Your task to perform on an android device: change the clock style Image 0: 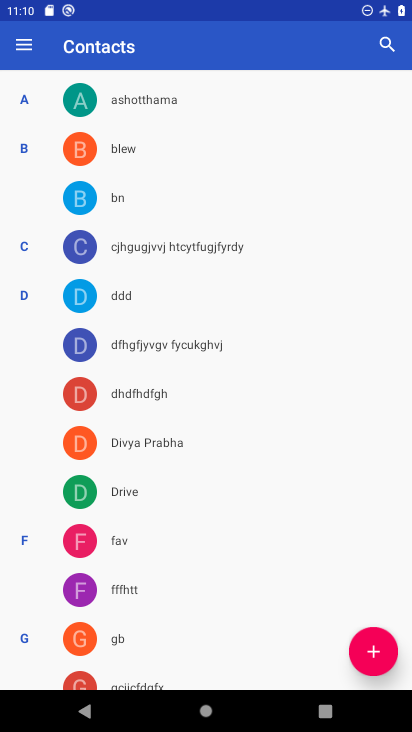
Step 0: press home button
Your task to perform on an android device: change the clock style Image 1: 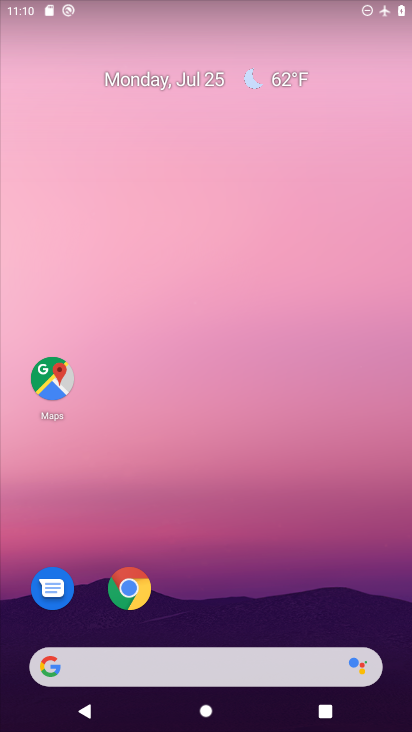
Step 1: drag from (20, 588) to (256, 68)
Your task to perform on an android device: change the clock style Image 2: 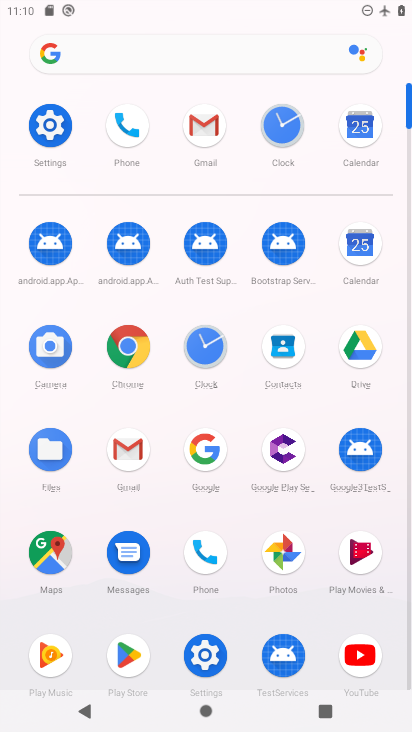
Step 2: click (201, 342)
Your task to perform on an android device: change the clock style Image 3: 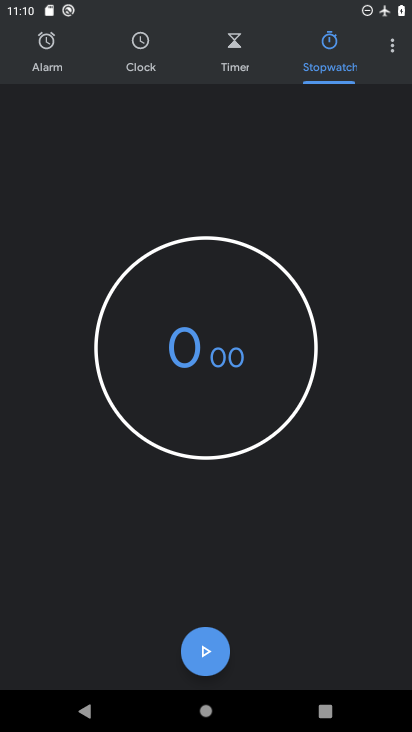
Step 3: click (396, 42)
Your task to perform on an android device: change the clock style Image 4: 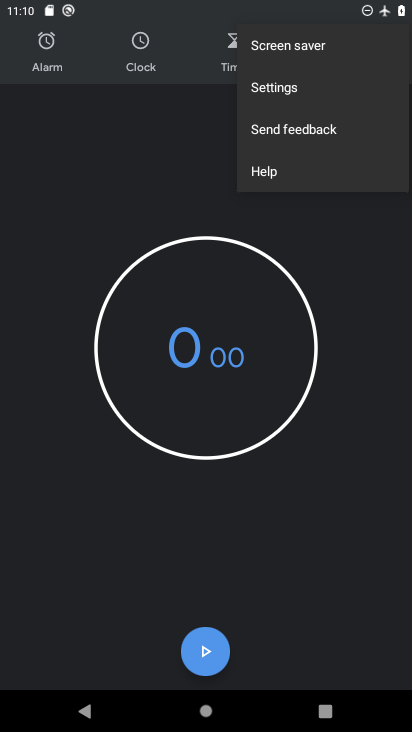
Step 4: click (293, 95)
Your task to perform on an android device: change the clock style Image 5: 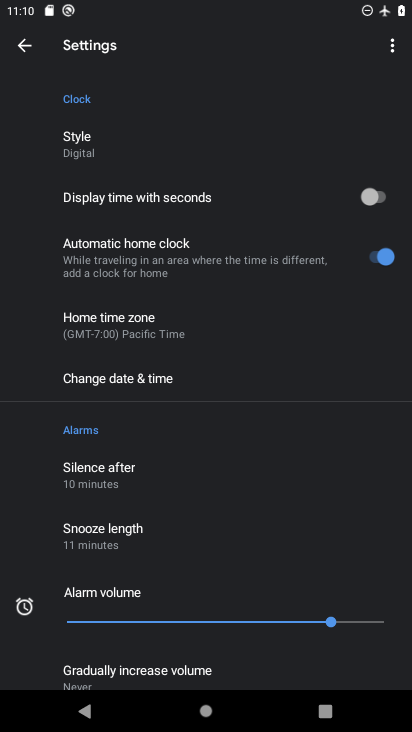
Step 5: click (153, 149)
Your task to perform on an android device: change the clock style Image 6: 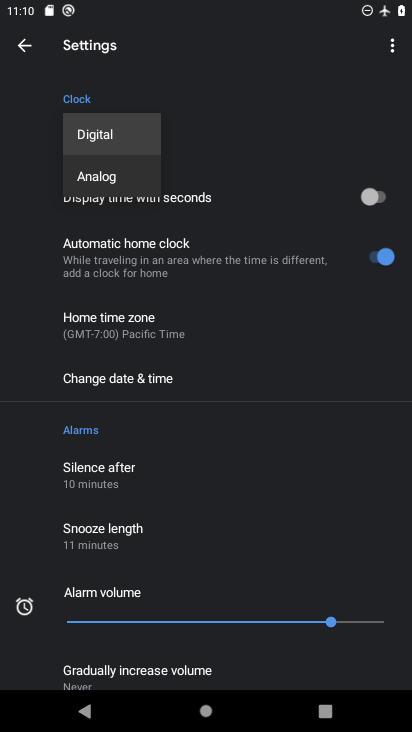
Step 6: click (132, 179)
Your task to perform on an android device: change the clock style Image 7: 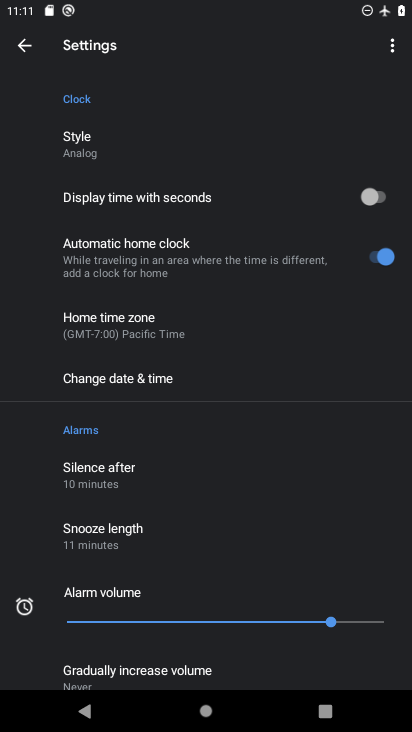
Step 7: task complete